Your task to perform on an android device: Open Android settings Image 0: 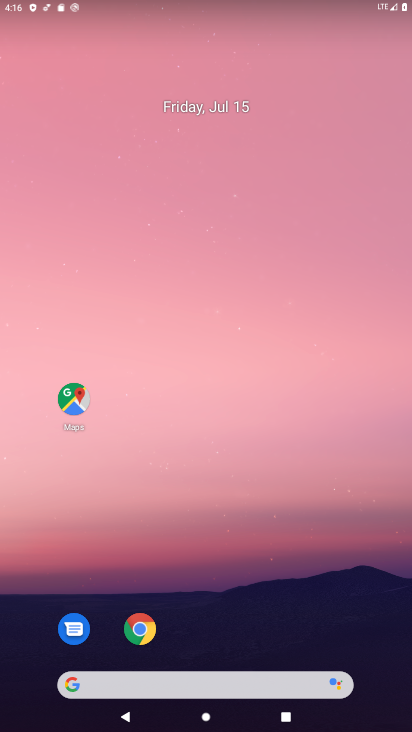
Step 0: press home button
Your task to perform on an android device: Open Android settings Image 1: 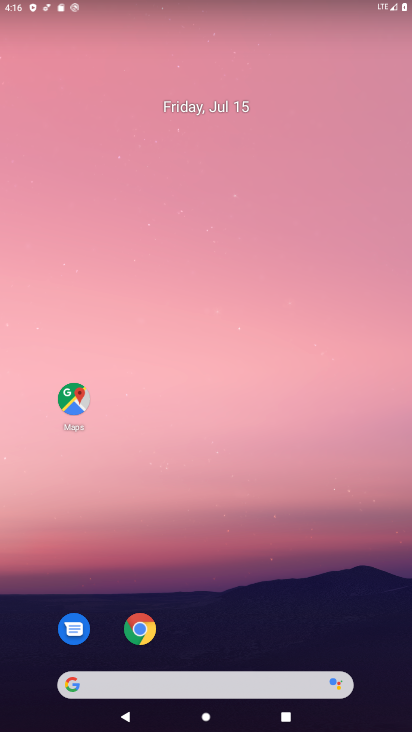
Step 1: drag from (196, 406) to (193, 6)
Your task to perform on an android device: Open Android settings Image 2: 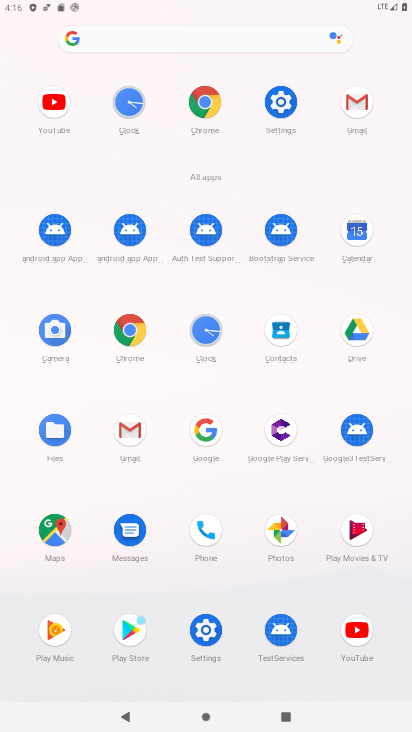
Step 2: click (279, 108)
Your task to perform on an android device: Open Android settings Image 3: 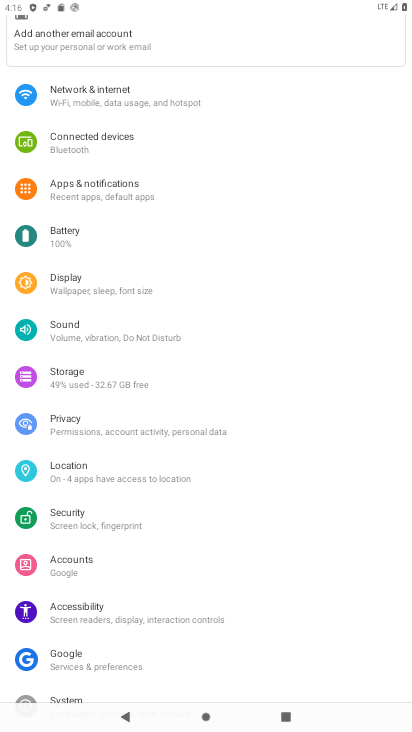
Step 3: drag from (77, 564) to (161, 162)
Your task to perform on an android device: Open Android settings Image 4: 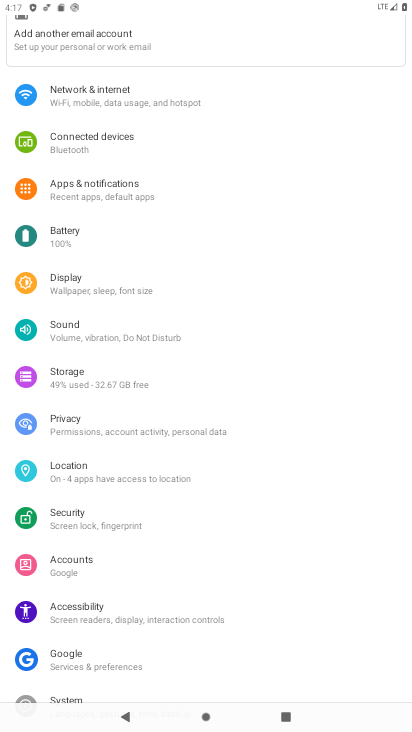
Step 4: drag from (129, 643) to (184, 75)
Your task to perform on an android device: Open Android settings Image 5: 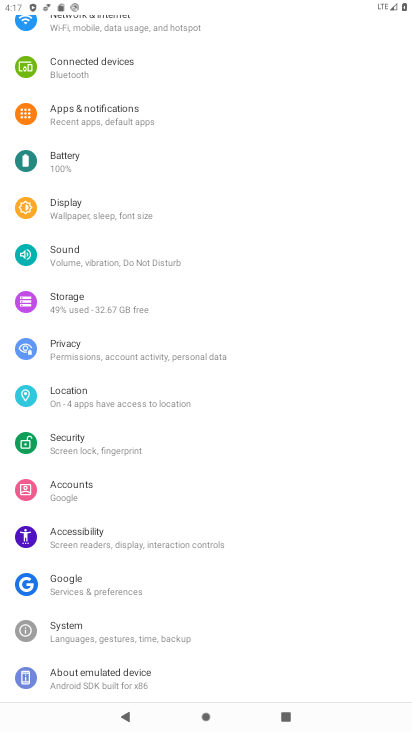
Step 5: click (62, 679)
Your task to perform on an android device: Open Android settings Image 6: 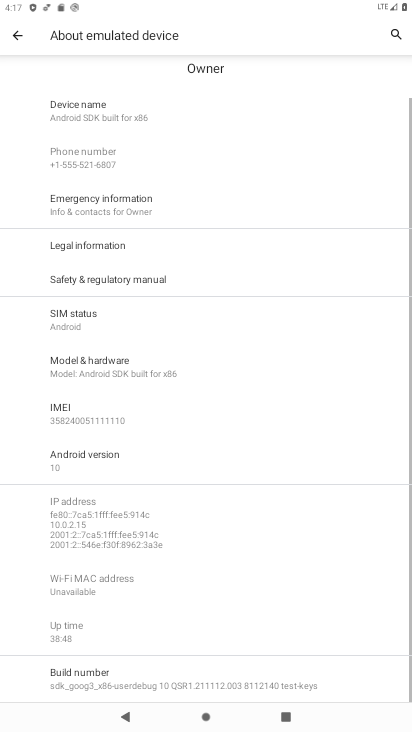
Step 6: click (83, 463)
Your task to perform on an android device: Open Android settings Image 7: 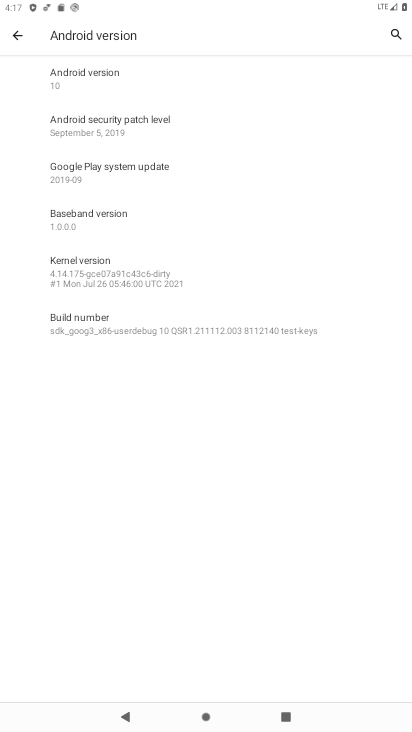
Step 7: task complete